Your task to perform on an android device: turn on showing notifications on the lock screen Image 0: 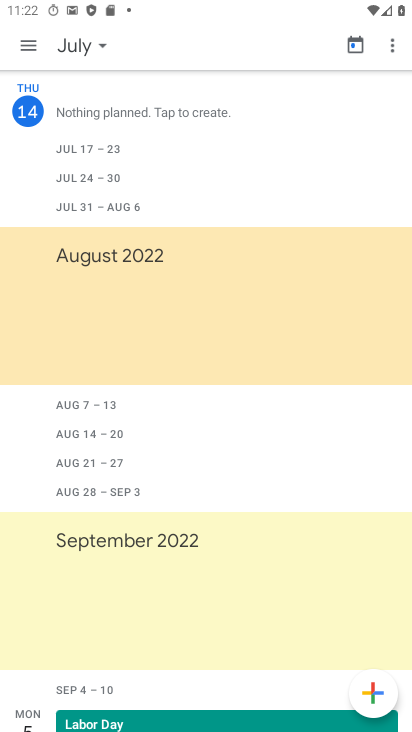
Step 0: press home button
Your task to perform on an android device: turn on showing notifications on the lock screen Image 1: 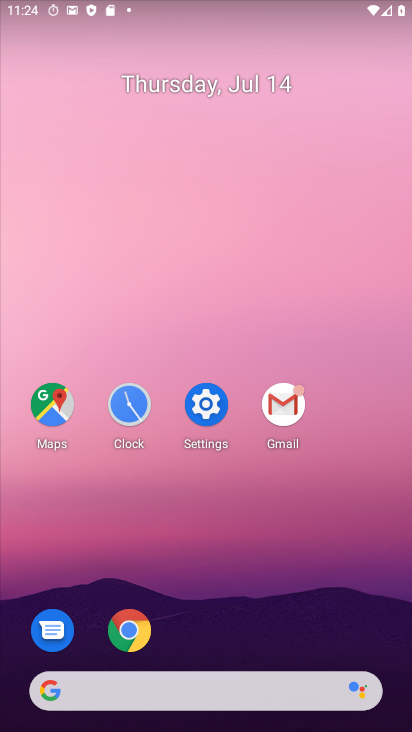
Step 1: click (202, 387)
Your task to perform on an android device: turn on showing notifications on the lock screen Image 2: 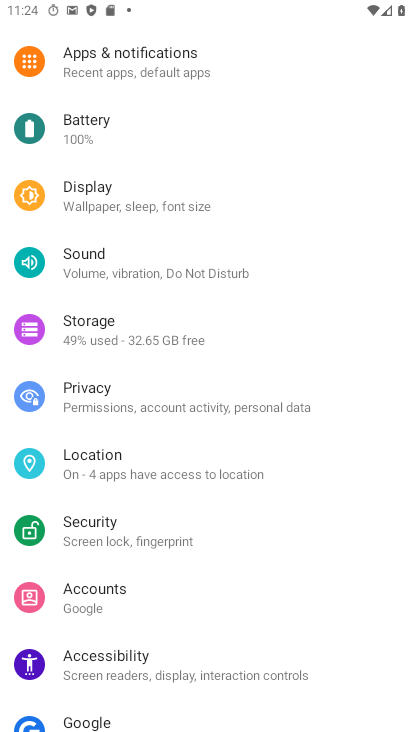
Step 2: click (148, 57)
Your task to perform on an android device: turn on showing notifications on the lock screen Image 3: 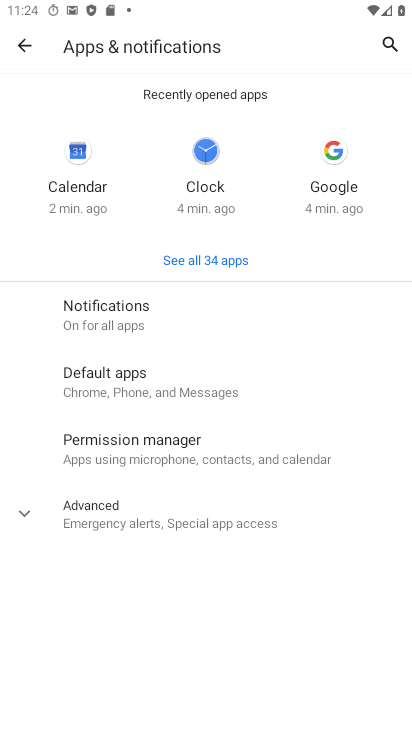
Step 3: click (94, 310)
Your task to perform on an android device: turn on showing notifications on the lock screen Image 4: 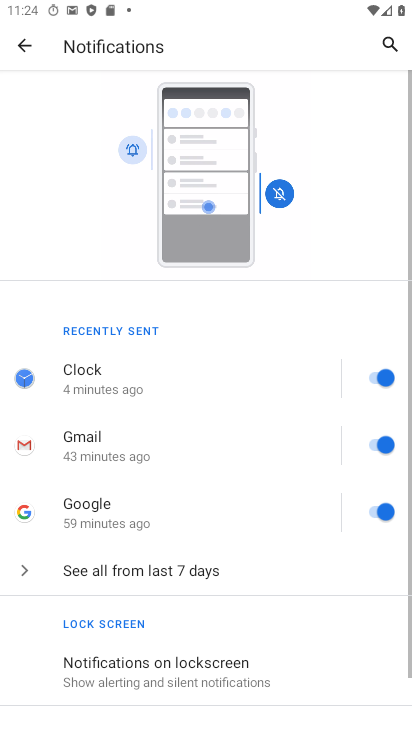
Step 4: click (138, 665)
Your task to perform on an android device: turn on showing notifications on the lock screen Image 5: 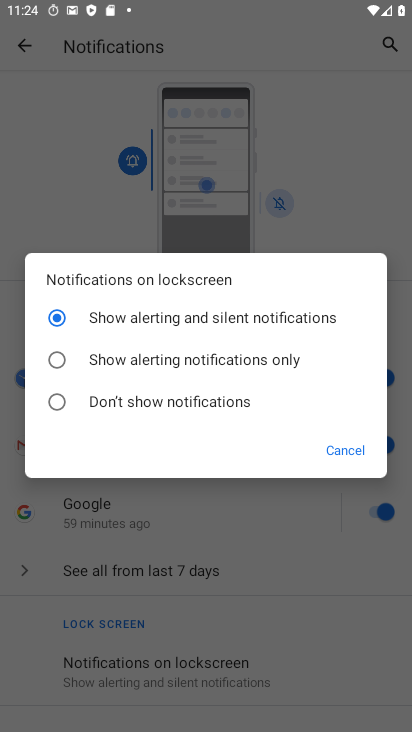
Step 5: task complete